Your task to perform on an android device: Open Wikipedia Image 0: 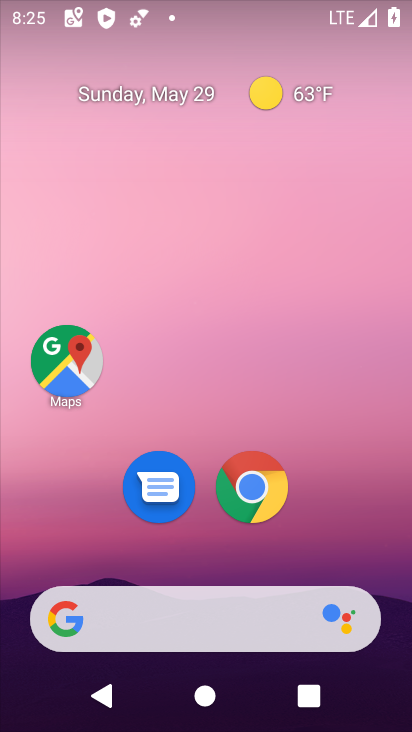
Step 0: drag from (232, 572) to (226, 107)
Your task to perform on an android device: Open Wikipedia Image 1: 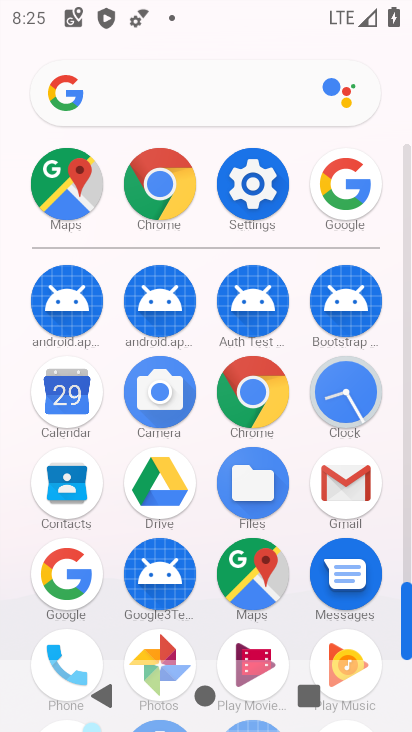
Step 1: click (256, 400)
Your task to perform on an android device: Open Wikipedia Image 2: 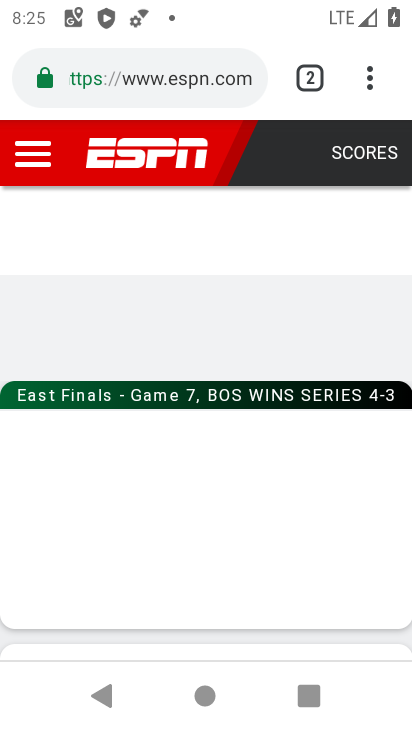
Step 2: click (237, 89)
Your task to perform on an android device: Open Wikipedia Image 3: 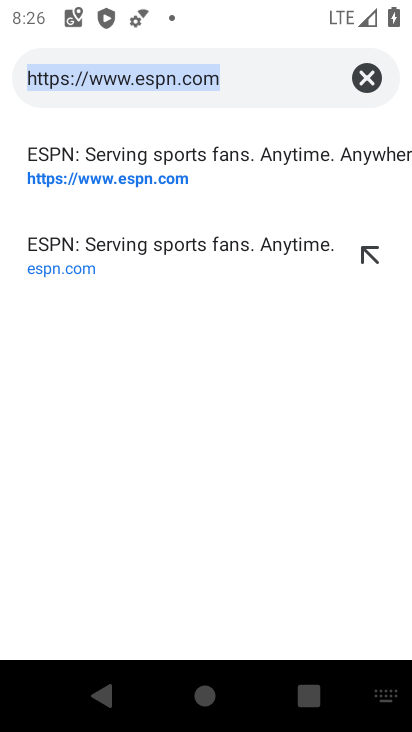
Step 3: type "wiki"
Your task to perform on an android device: Open Wikipedia Image 4: 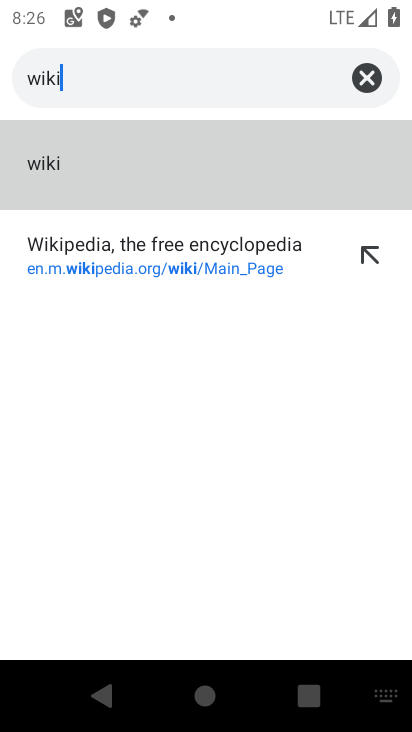
Step 4: click (265, 264)
Your task to perform on an android device: Open Wikipedia Image 5: 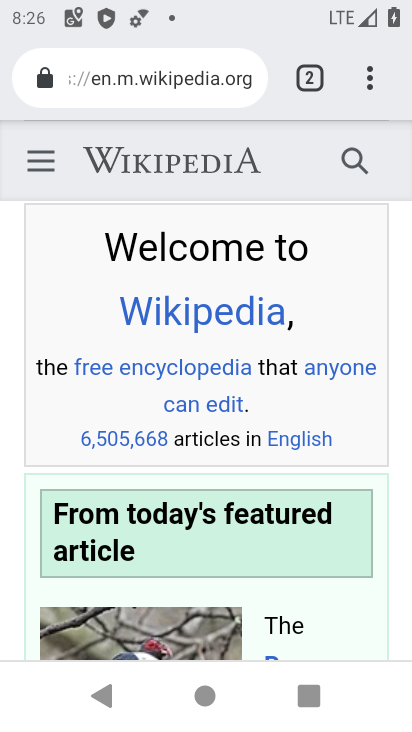
Step 5: task complete